Your task to perform on an android device: toggle data saver in the chrome app Image 0: 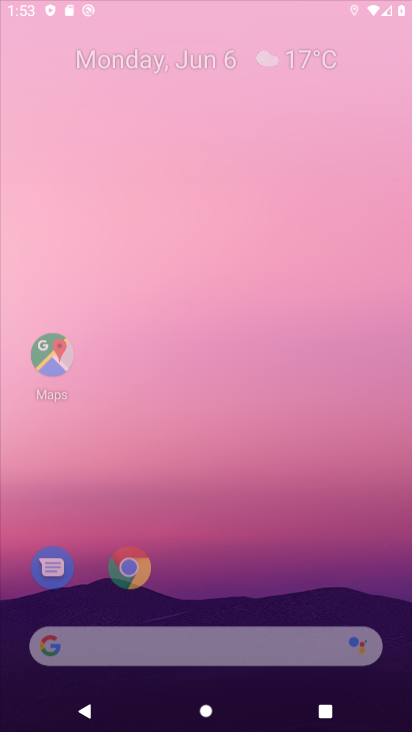
Step 0: click (135, 600)
Your task to perform on an android device: toggle data saver in the chrome app Image 1: 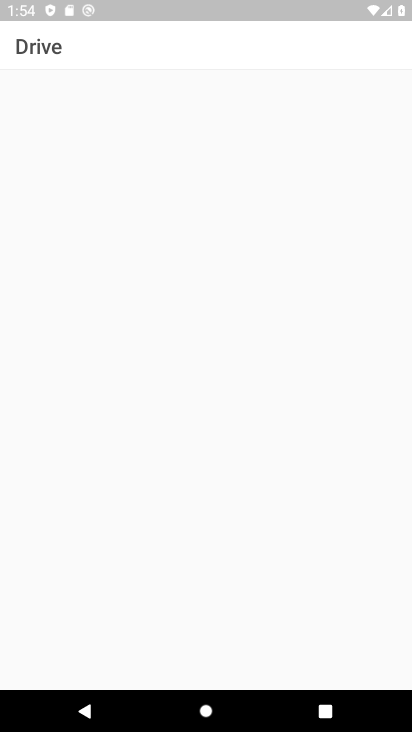
Step 1: press home button
Your task to perform on an android device: toggle data saver in the chrome app Image 2: 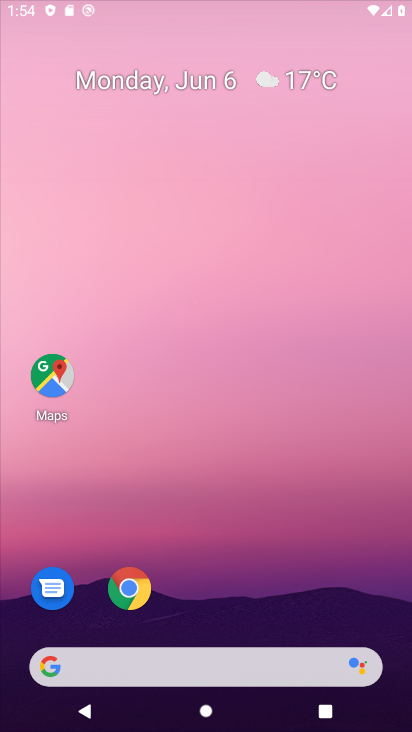
Step 2: click (137, 612)
Your task to perform on an android device: toggle data saver in the chrome app Image 3: 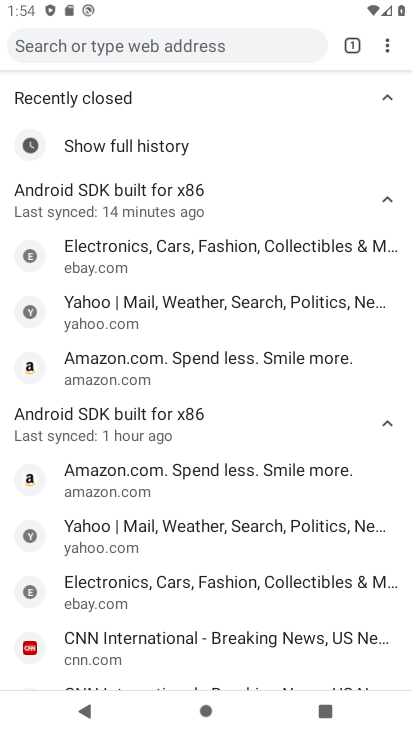
Step 3: drag from (388, 41) to (231, 381)
Your task to perform on an android device: toggle data saver in the chrome app Image 4: 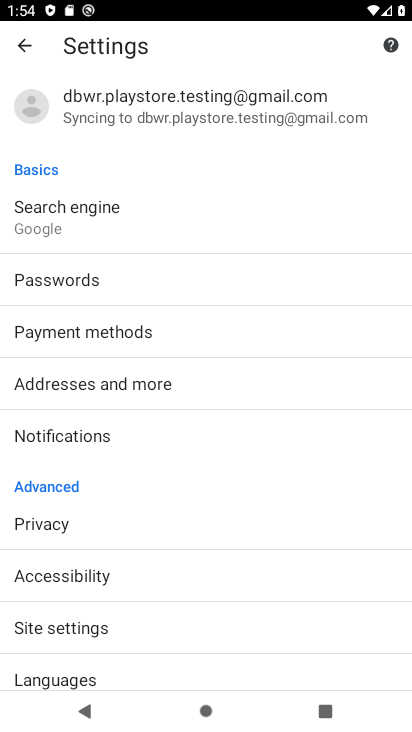
Step 4: drag from (105, 658) to (151, 423)
Your task to perform on an android device: toggle data saver in the chrome app Image 5: 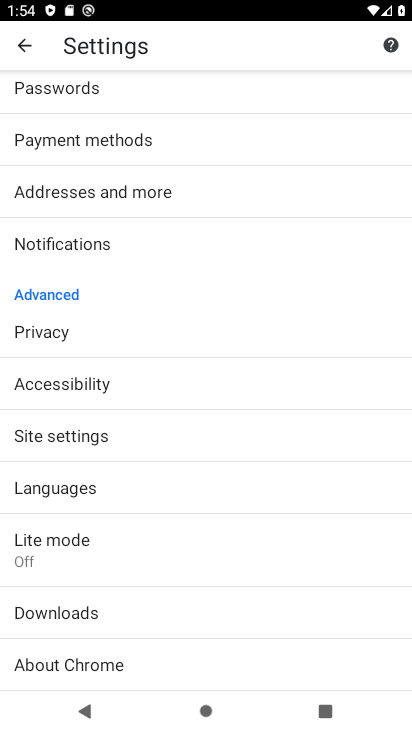
Step 5: click (120, 536)
Your task to perform on an android device: toggle data saver in the chrome app Image 6: 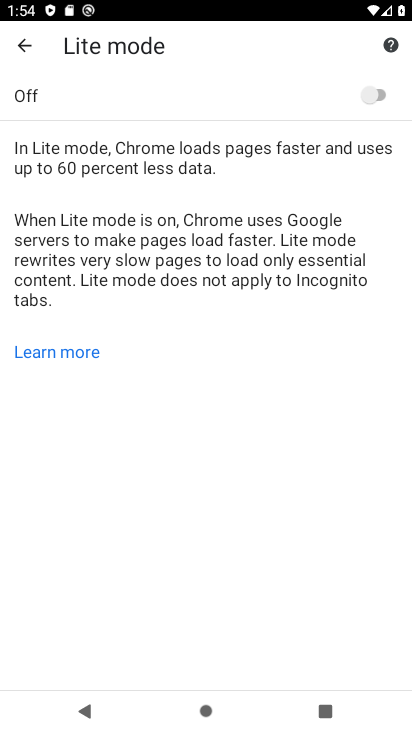
Step 6: click (377, 101)
Your task to perform on an android device: toggle data saver in the chrome app Image 7: 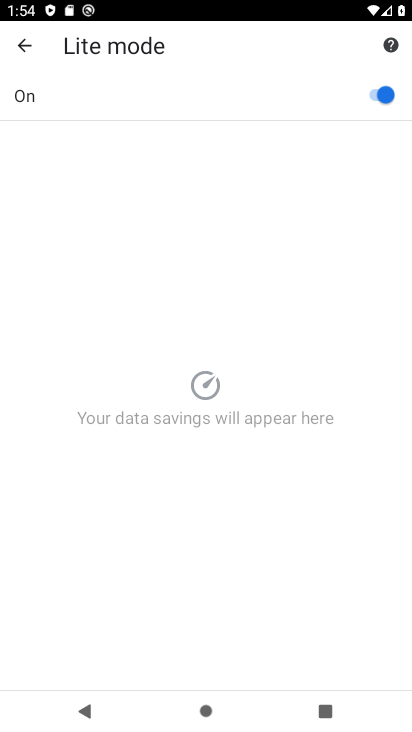
Step 7: task complete